Your task to perform on an android device: Is it going to rain this weekend? Image 0: 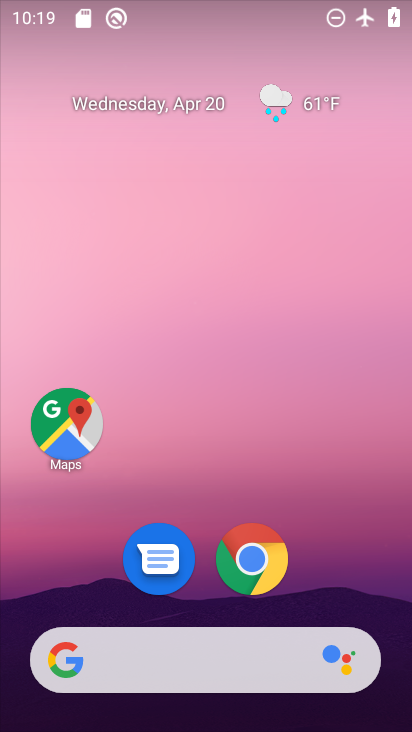
Step 0: click (280, 102)
Your task to perform on an android device: Is it going to rain this weekend? Image 1: 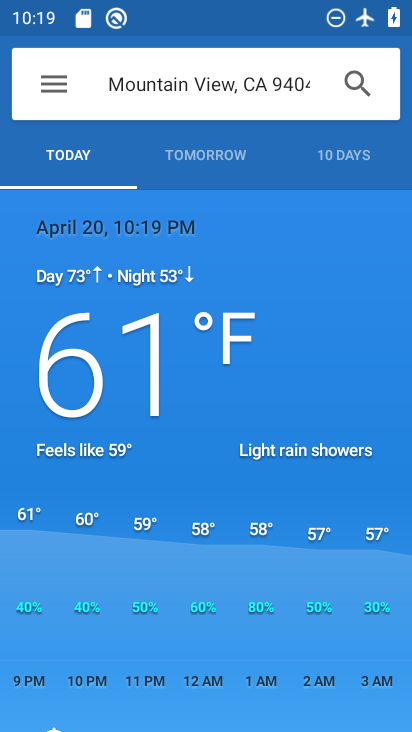
Step 1: click (339, 152)
Your task to perform on an android device: Is it going to rain this weekend? Image 2: 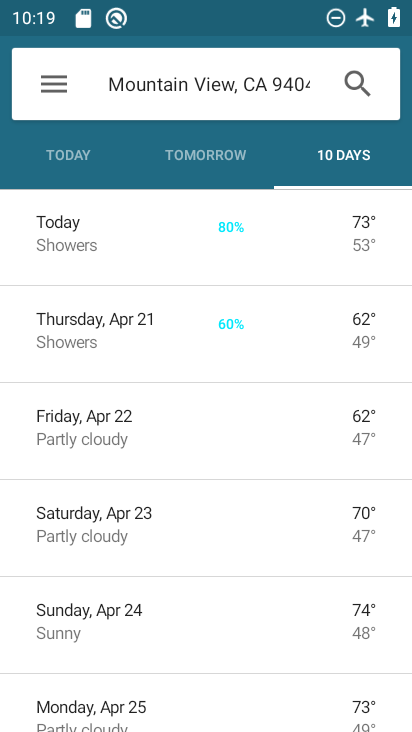
Step 2: task complete